Your task to perform on an android device: Is it going to rain tomorrow? Image 0: 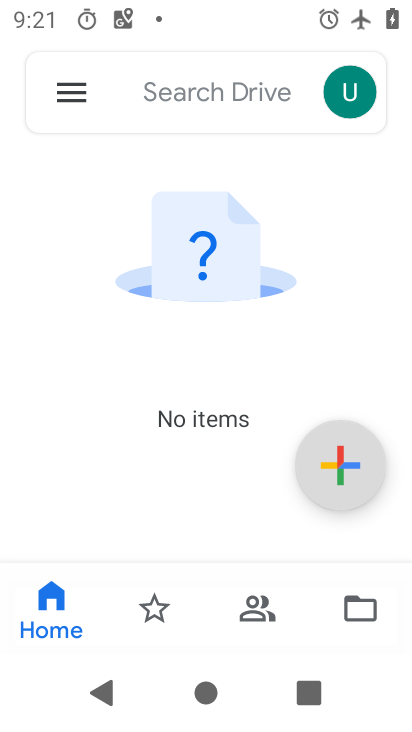
Step 0: press home button
Your task to perform on an android device: Is it going to rain tomorrow? Image 1: 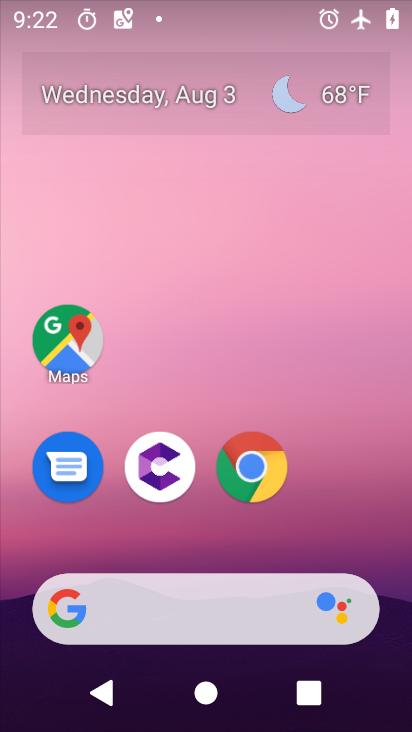
Step 1: drag from (347, 472) to (279, 47)
Your task to perform on an android device: Is it going to rain tomorrow? Image 2: 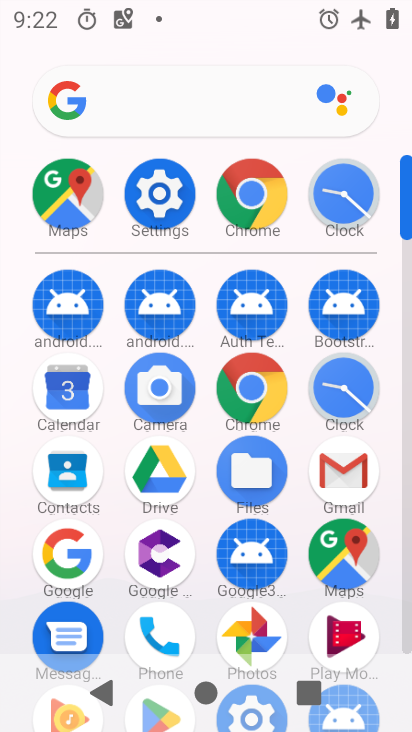
Step 2: click (252, 384)
Your task to perform on an android device: Is it going to rain tomorrow? Image 3: 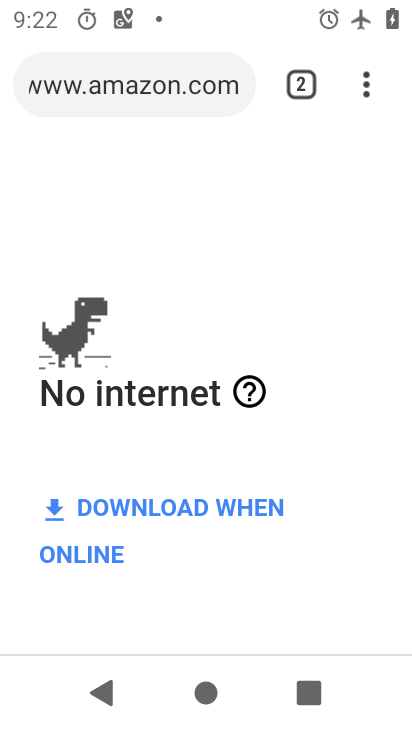
Step 3: press home button
Your task to perform on an android device: Is it going to rain tomorrow? Image 4: 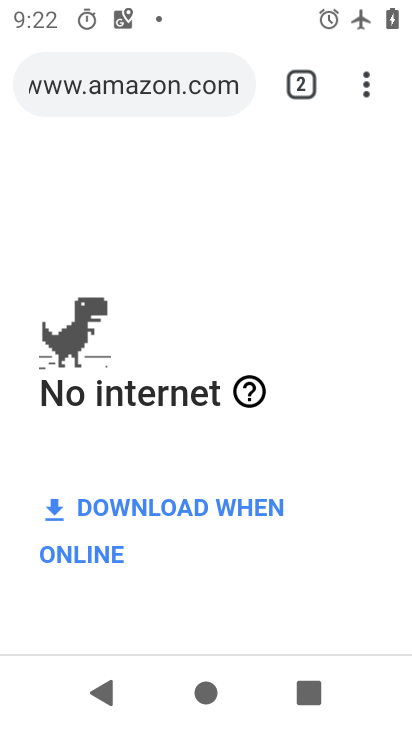
Step 4: press home button
Your task to perform on an android device: Is it going to rain tomorrow? Image 5: 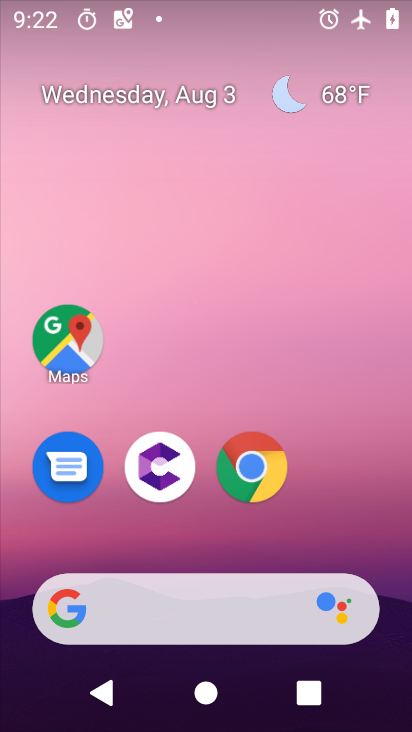
Step 5: click (347, 104)
Your task to perform on an android device: Is it going to rain tomorrow? Image 6: 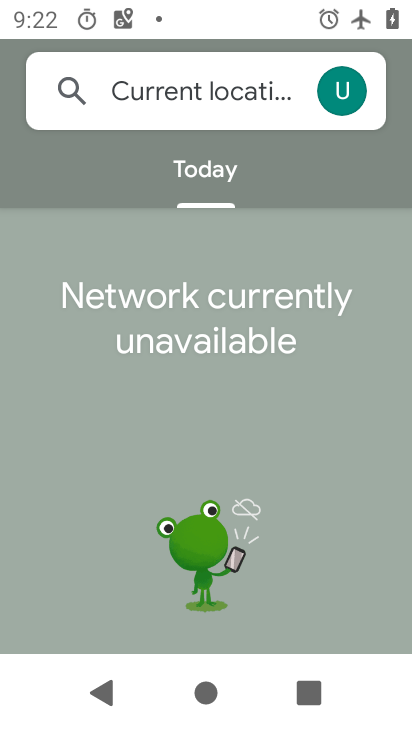
Step 6: task complete